Your task to perform on an android device: Open ESPN.com Image 0: 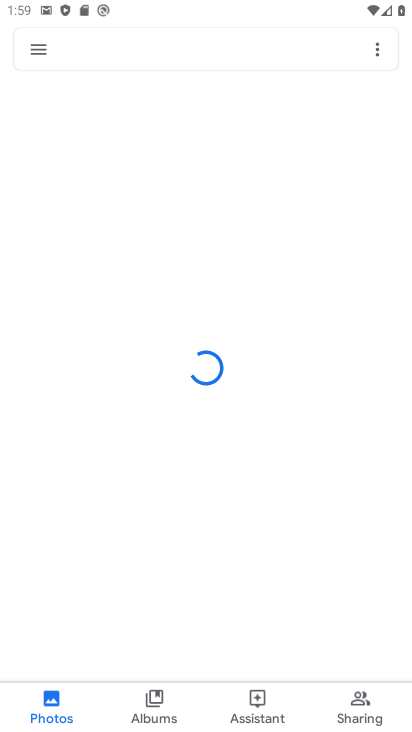
Step 0: press home button
Your task to perform on an android device: Open ESPN.com Image 1: 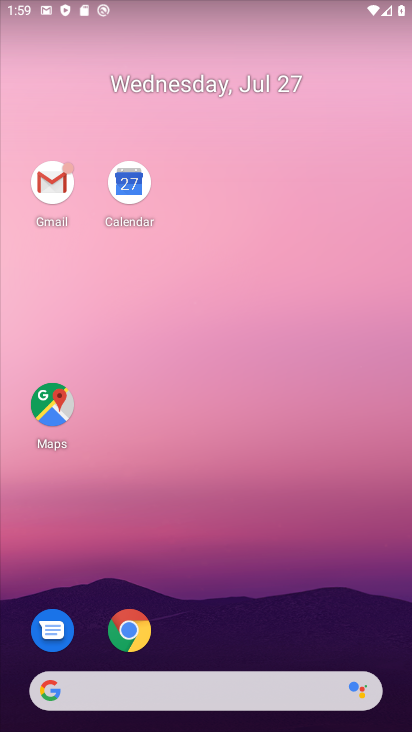
Step 1: click (140, 620)
Your task to perform on an android device: Open ESPN.com Image 2: 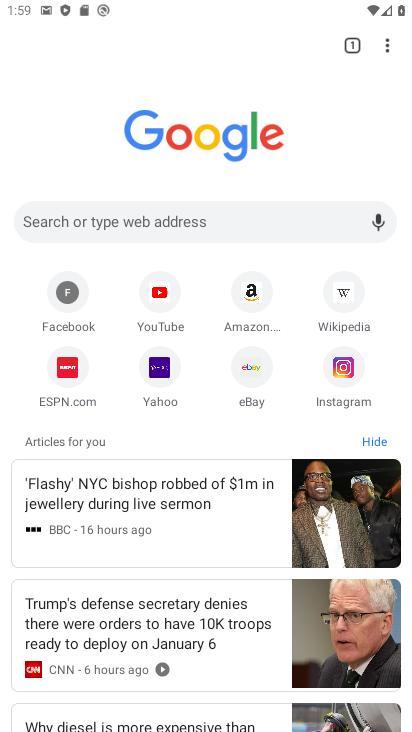
Step 2: click (74, 373)
Your task to perform on an android device: Open ESPN.com Image 3: 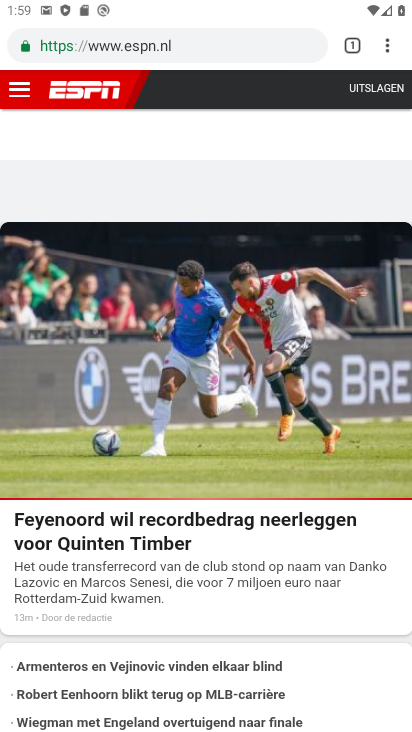
Step 3: task complete